Your task to perform on an android device: toggle notification dots Image 0: 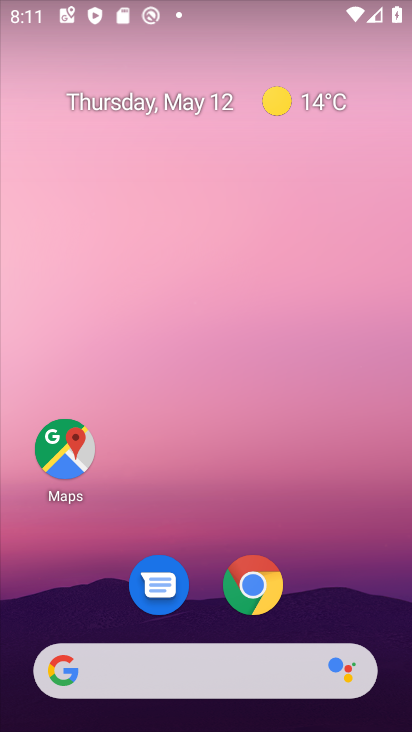
Step 0: drag from (267, 456) to (217, 32)
Your task to perform on an android device: toggle notification dots Image 1: 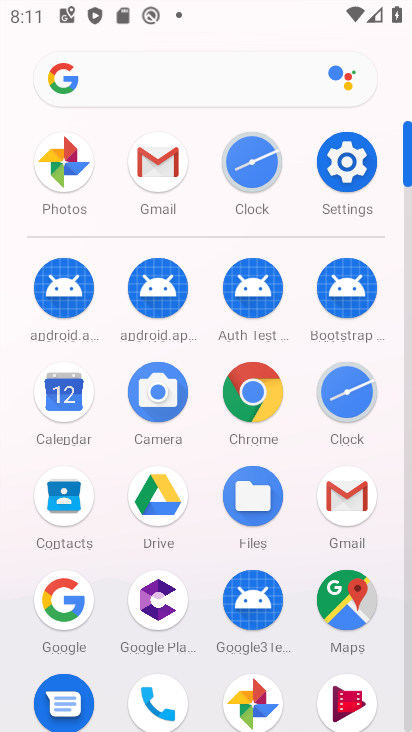
Step 1: click (341, 150)
Your task to perform on an android device: toggle notification dots Image 2: 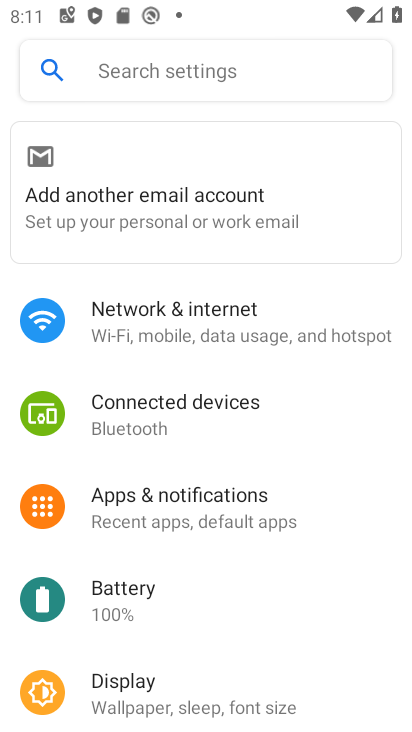
Step 2: click (206, 492)
Your task to perform on an android device: toggle notification dots Image 3: 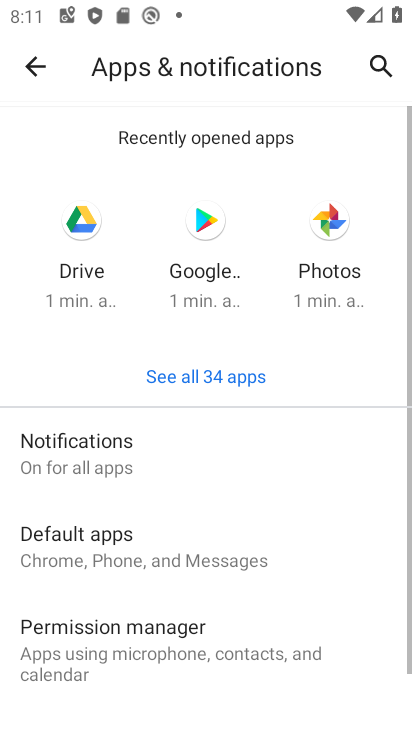
Step 3: click (91, 439)
Your task to perform on an android device: toggle notification dots Image 4: 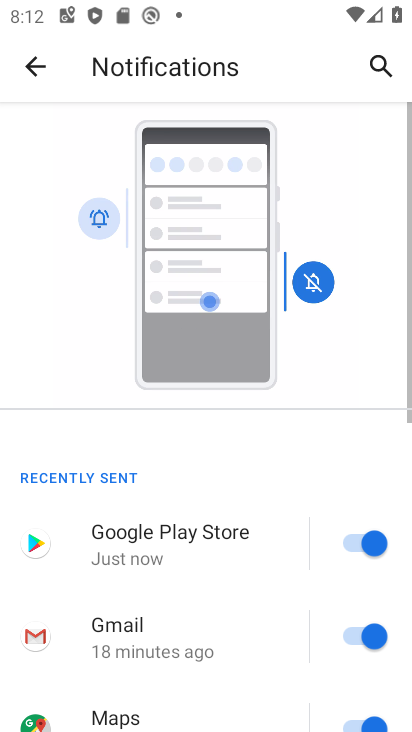
Step 4: drag from (231, 566) to (195, 187)
Your task to perform on an android device: toggle notification dots Image 5: 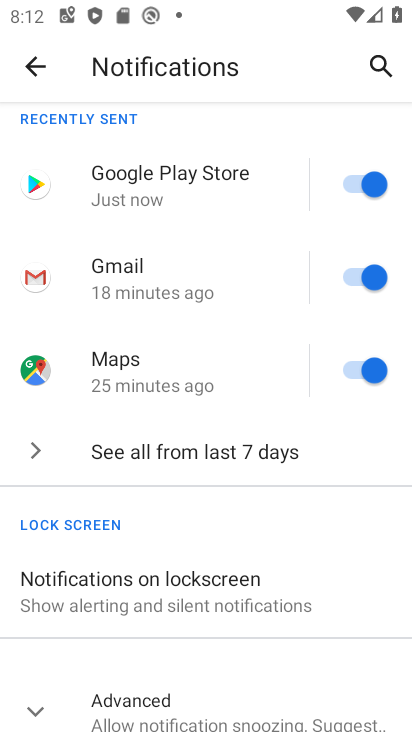
Step 5: click (40, 703)
Your task to perform on an android device: toggle notification dots Image 6: 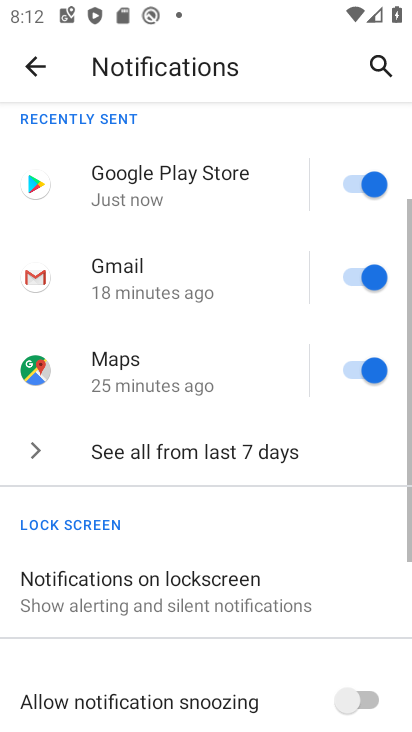
Step 6: drag from (220, 552) to (199, 108)
Your task to perform on an android device: toggle notification dots Image 7: 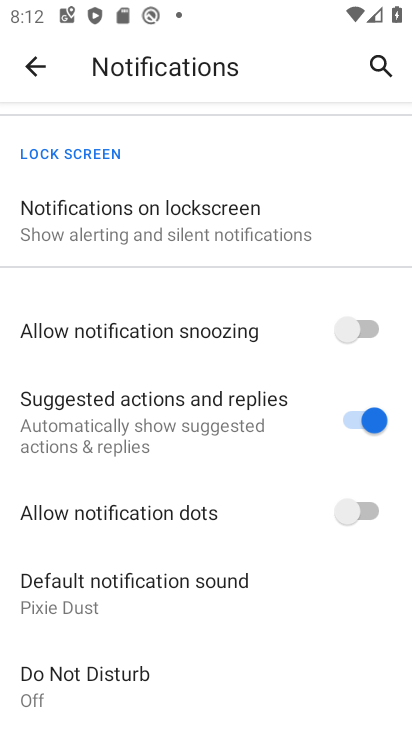
Step 7: click (367, 511)
Your task to perform on an android device: toggle notification dots Image 8: 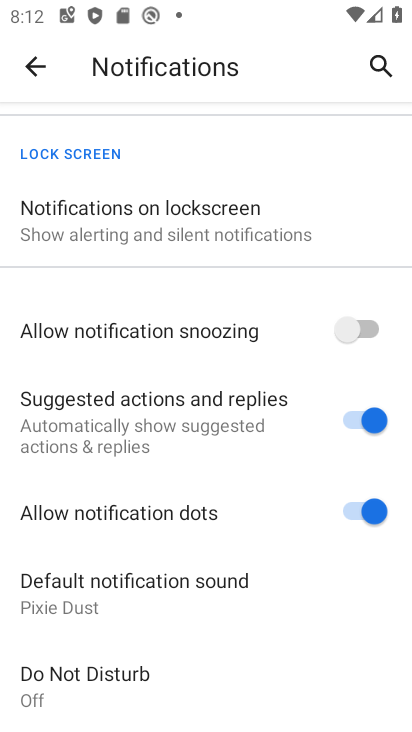
Step 8: task complete